Your task to perform on an android device: Open the stopwatch Image 0: 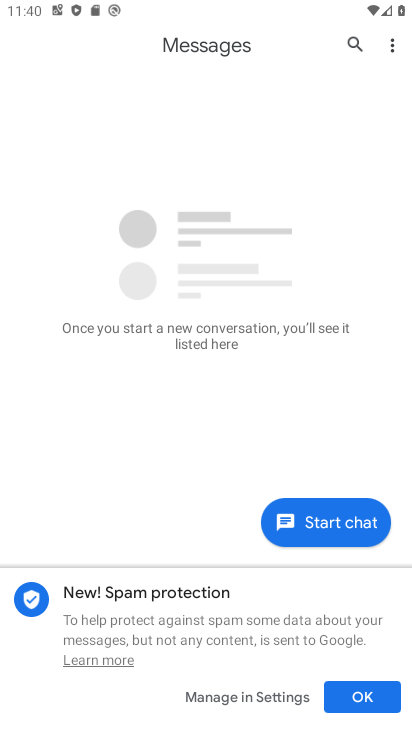
Step 0: press home button
Your task to perform on an android device: Open the stopwatch Image 1: 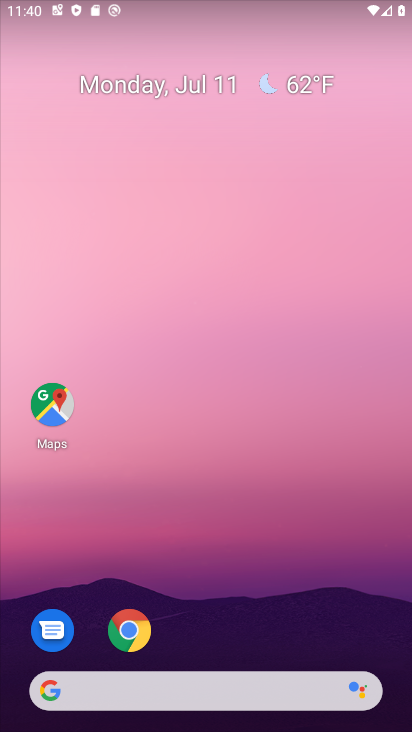
Step 1: drag from (194, 677) to (335, 14)
Your task to perform on an android device: Open the stopwatch Image 2: 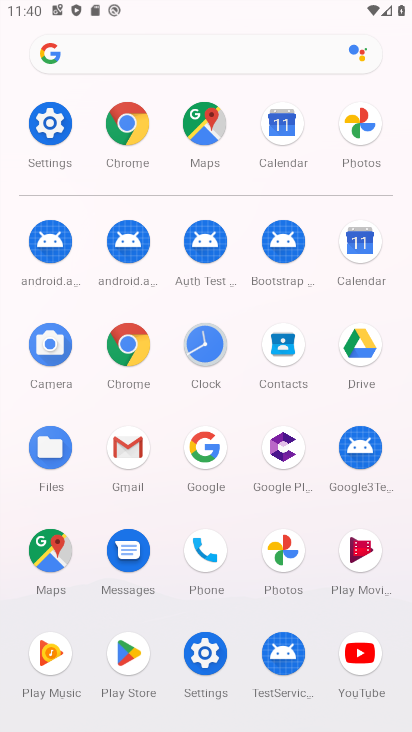
Step 2: click (206, 340)
Your task to perform on an android device: Open the stopwatch Image 3: 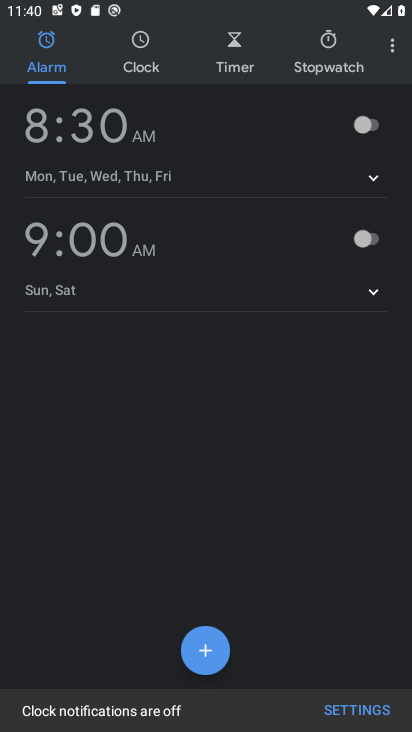
Step 3: click (335, 48)
Your task to perform on an android device: Open the stopwatch Image 4: 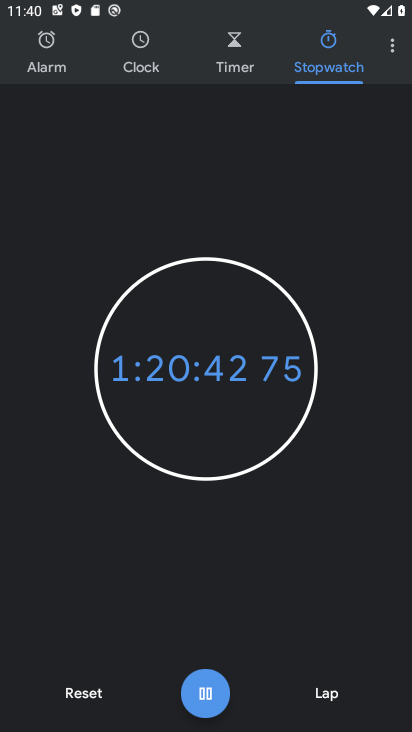
Step 4: click (210, 689)
Your task to perform on an android device: Open the stopwatch Image 5: 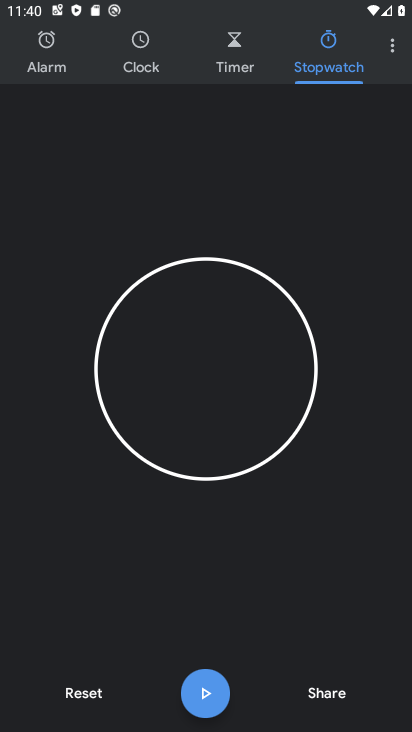
Step 5: task complete